Your task to perform on an android device: snooze an email in the gmail app Image 0: 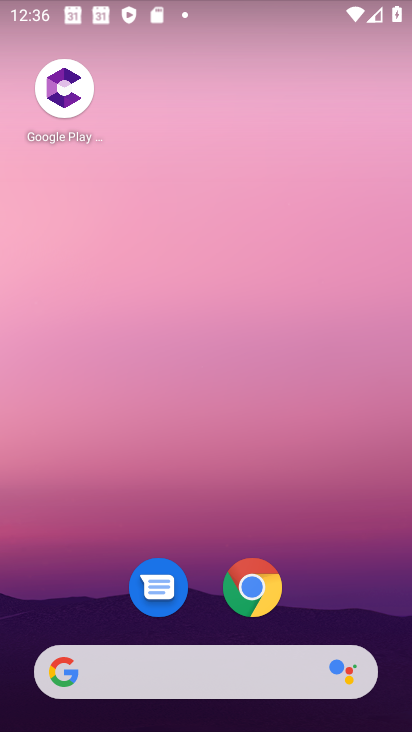
Step 0: drag from (225, 639) to (345, 215)
Your task to perform on an android device: snooze an email in the gmail app Image 1: 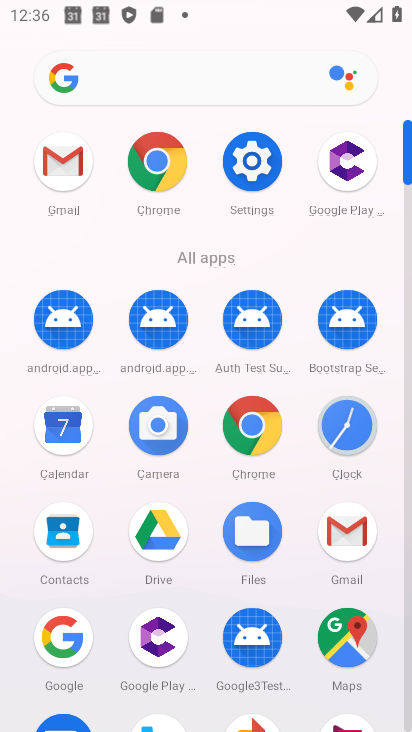
Step 1: click (356, 533)
Your task to perform on an android device: snooze an email in the gmail app Image 2: 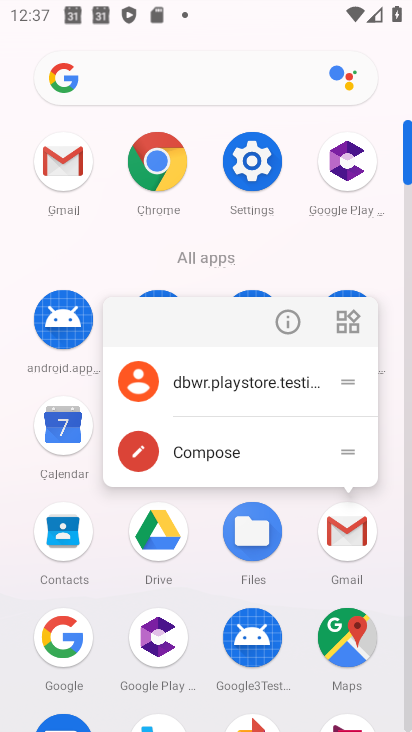
Step 2: click (360, 545)
Your task to perform on an android device: snooze an email in the gmail app Image 3: 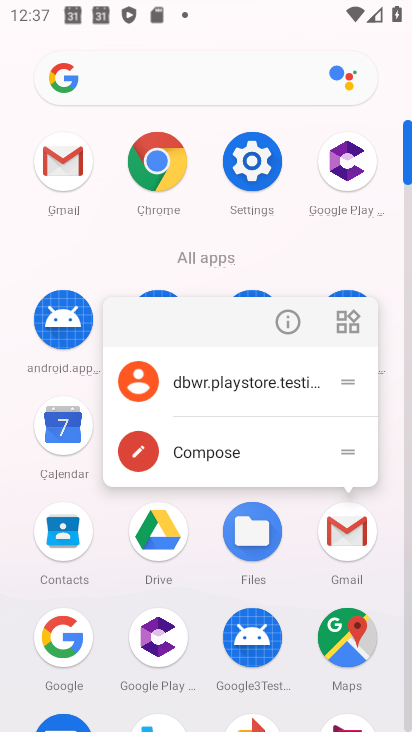
Step 3: click (339, 557)
Your task to perform on an android device: snooze an email in the gmail app Image 4: 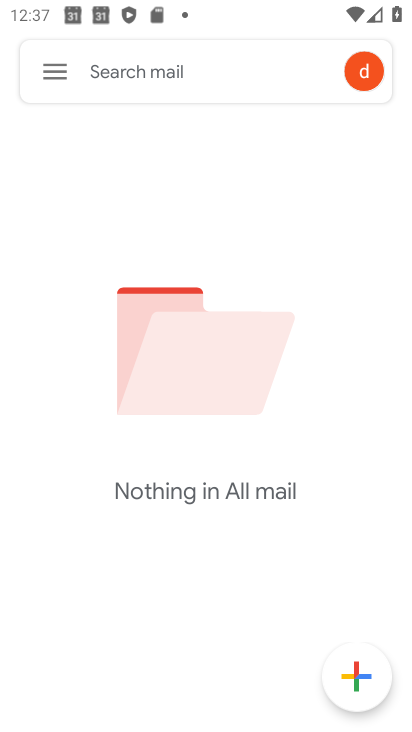
Step 4: task complete